Your task to perform on an android device: turn on bluetooth scan Image 0: 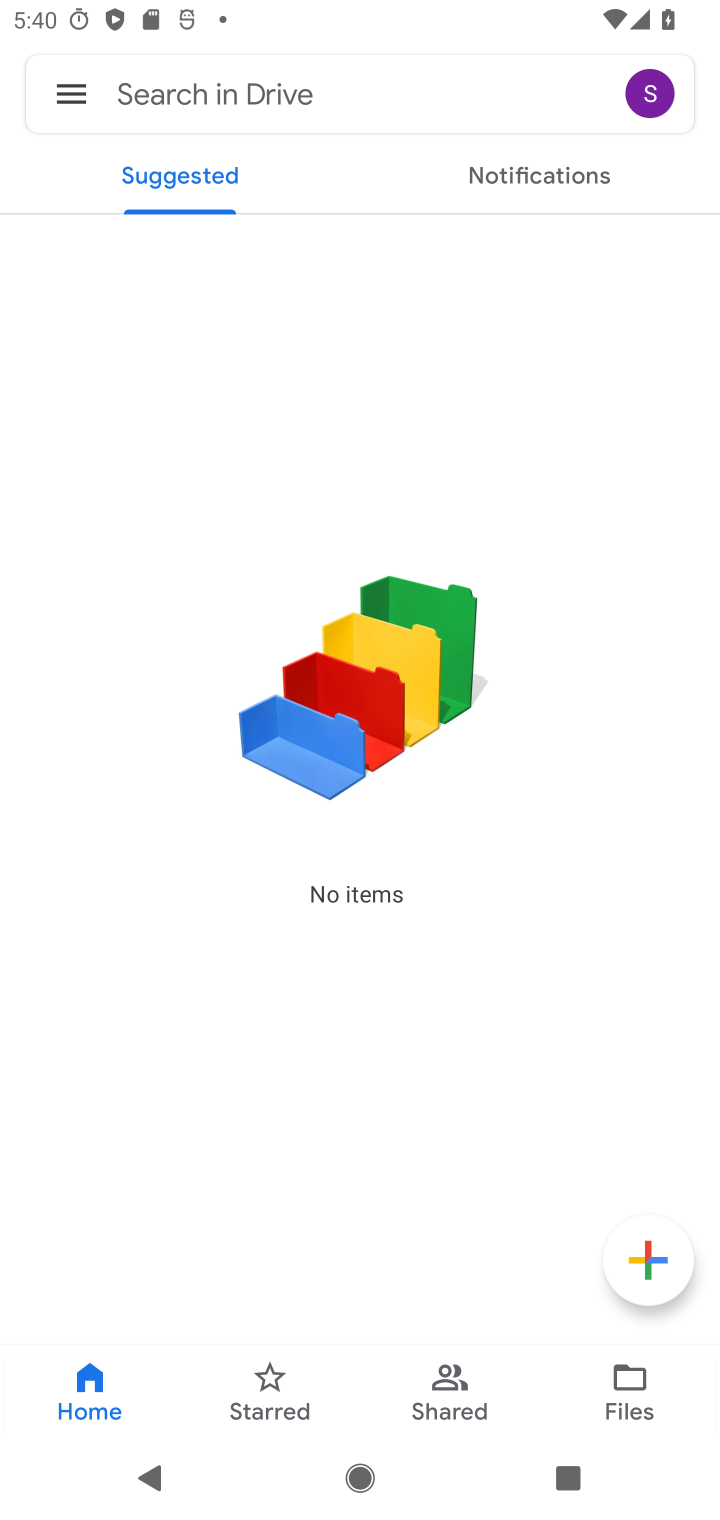
Step 0: press home button
Your task to perform on an android device: turn on bluetooth scan Image 1: 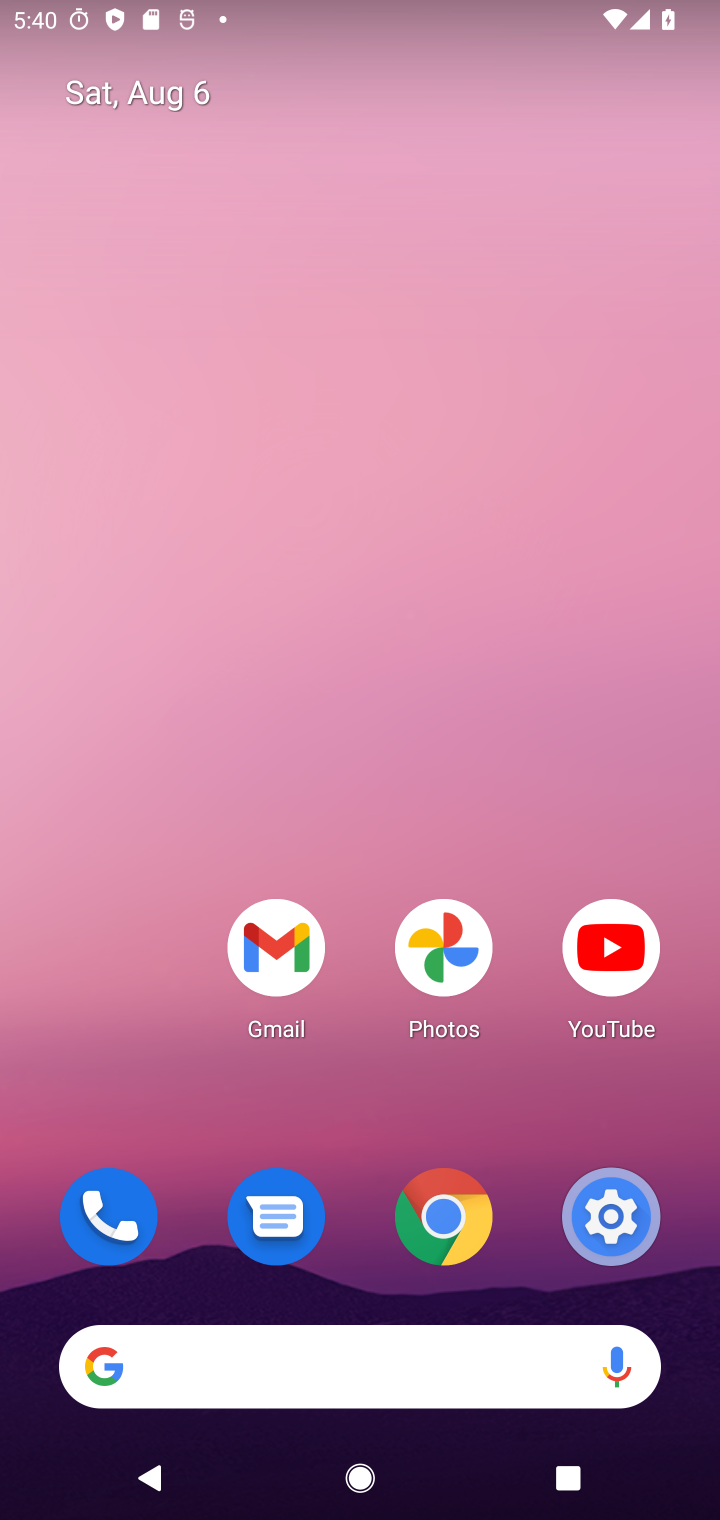
Step 1: drag from (566, 920) to (578, 143)
Your task to perform on an android device: turn on bluetooth scan Image 2: 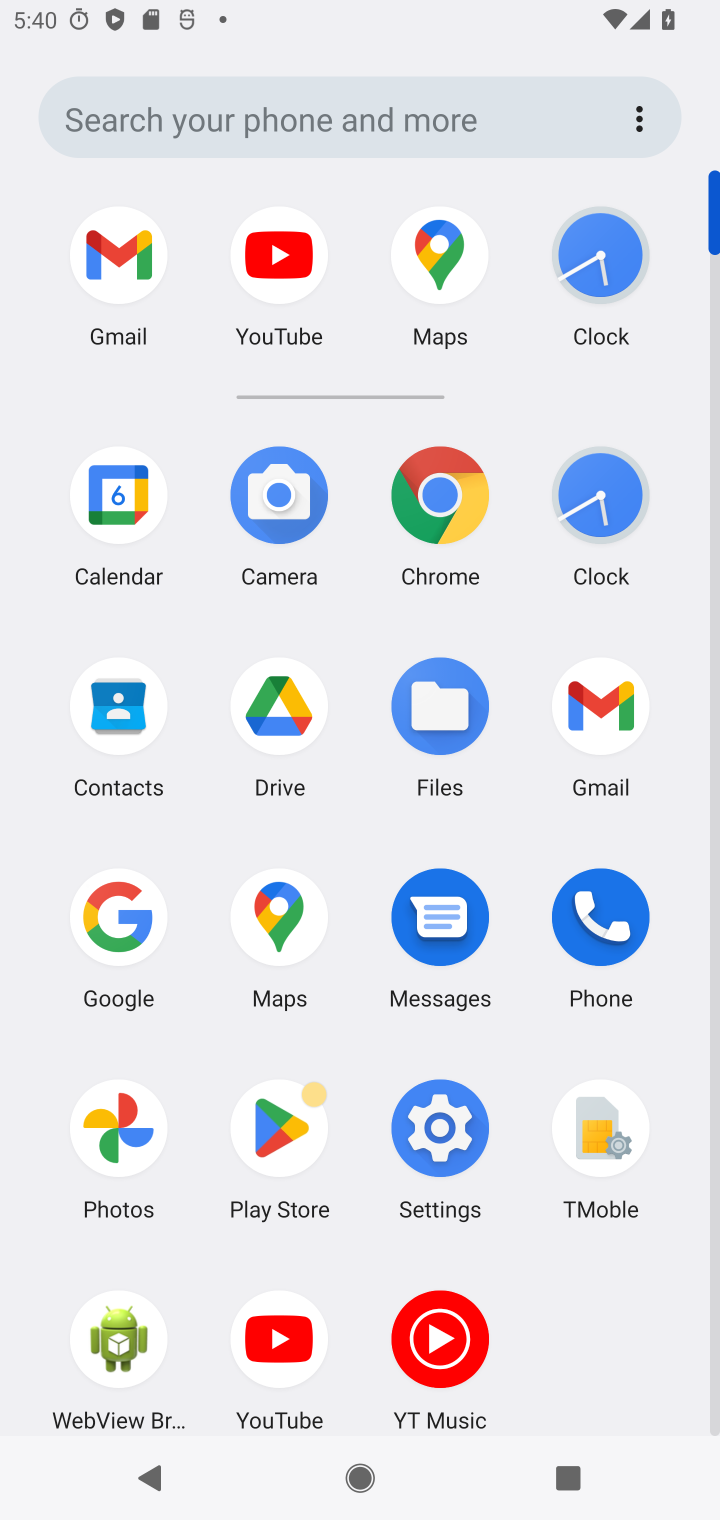
Step 2: click (435, 1111)
Your task to perform on an android device: turn on bluetooth scan Image 3: 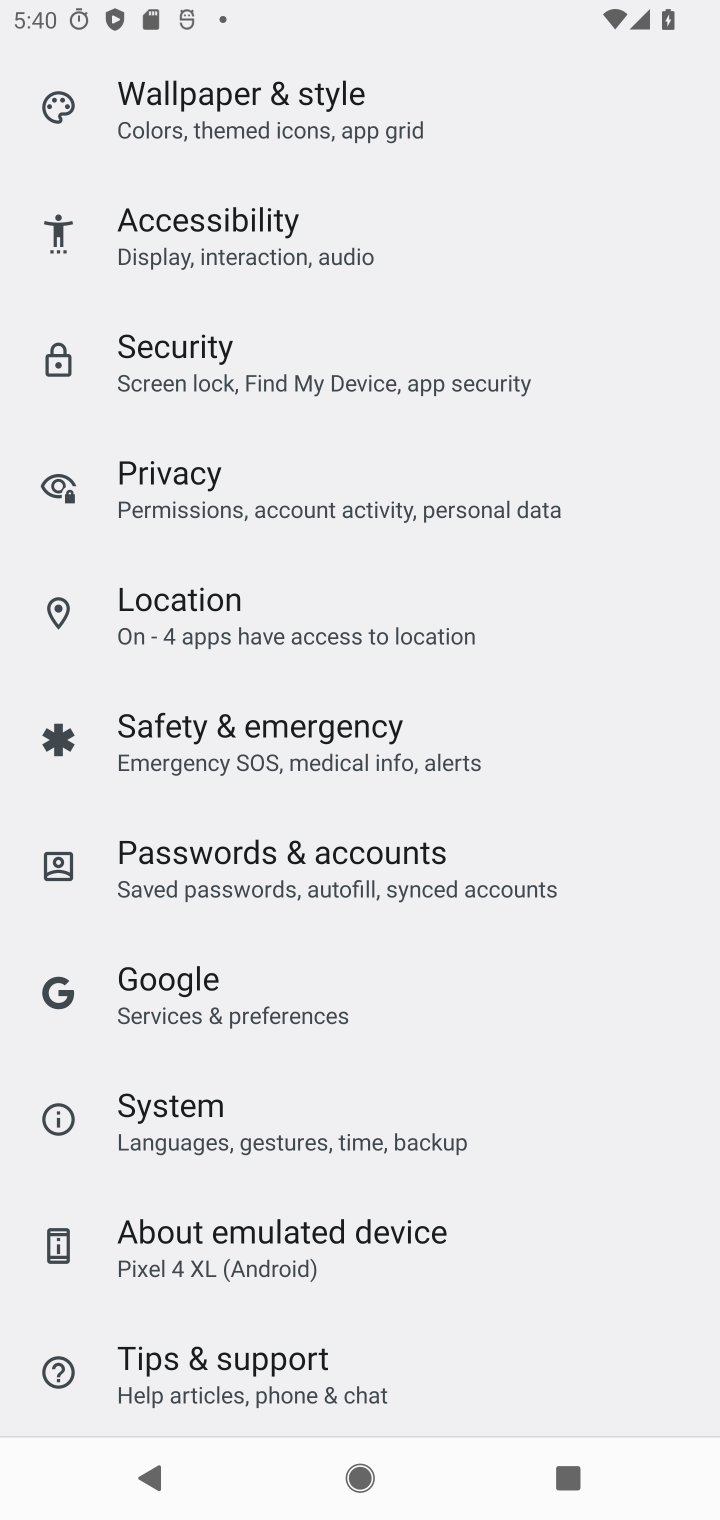
Step 3: drag from (481, 254) to (343, 1103)
Your task to perform on an android device: turn on bluetooth scan Image 4: 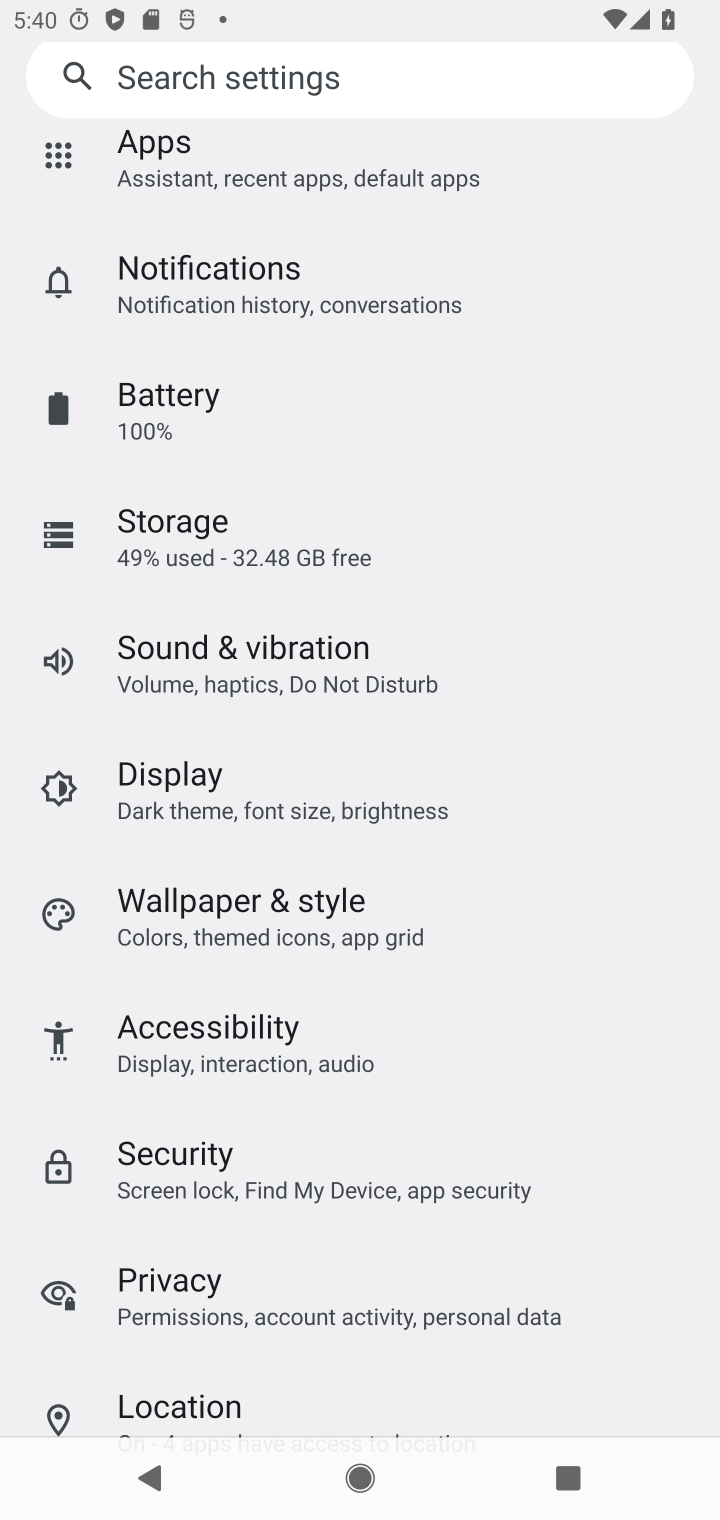
Step 4: drag from (462, 428) to (458, 973)
Your task to perform on an android device: turn on bluetooth scan Image 5: 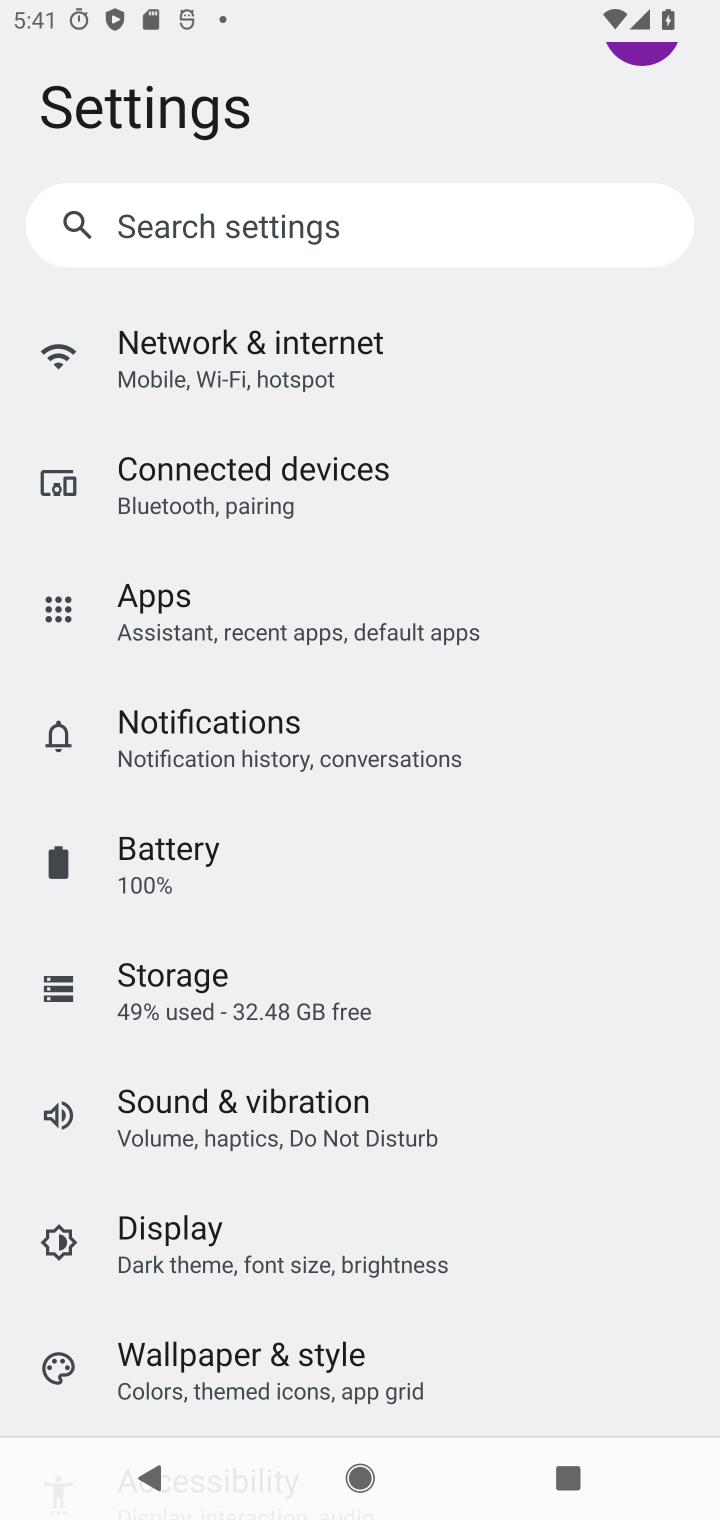
Step 5: drag from (473, 1149) to (507, 530)
Your task to perform on an android device: turn on bluetooth scan Image 6: 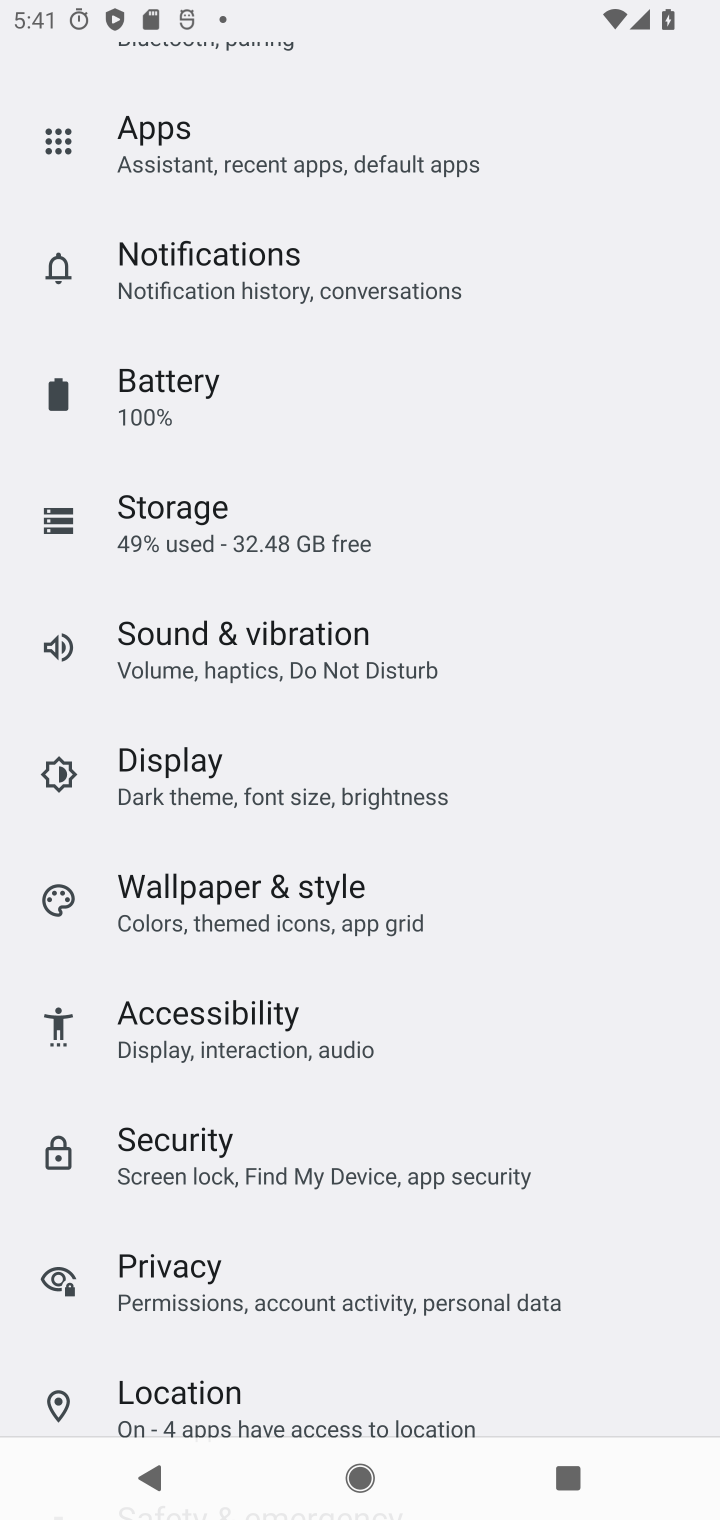
Step 6: click (185, 1402)
Your task to perform on an android device: turn on bluetooth scan Image 7: 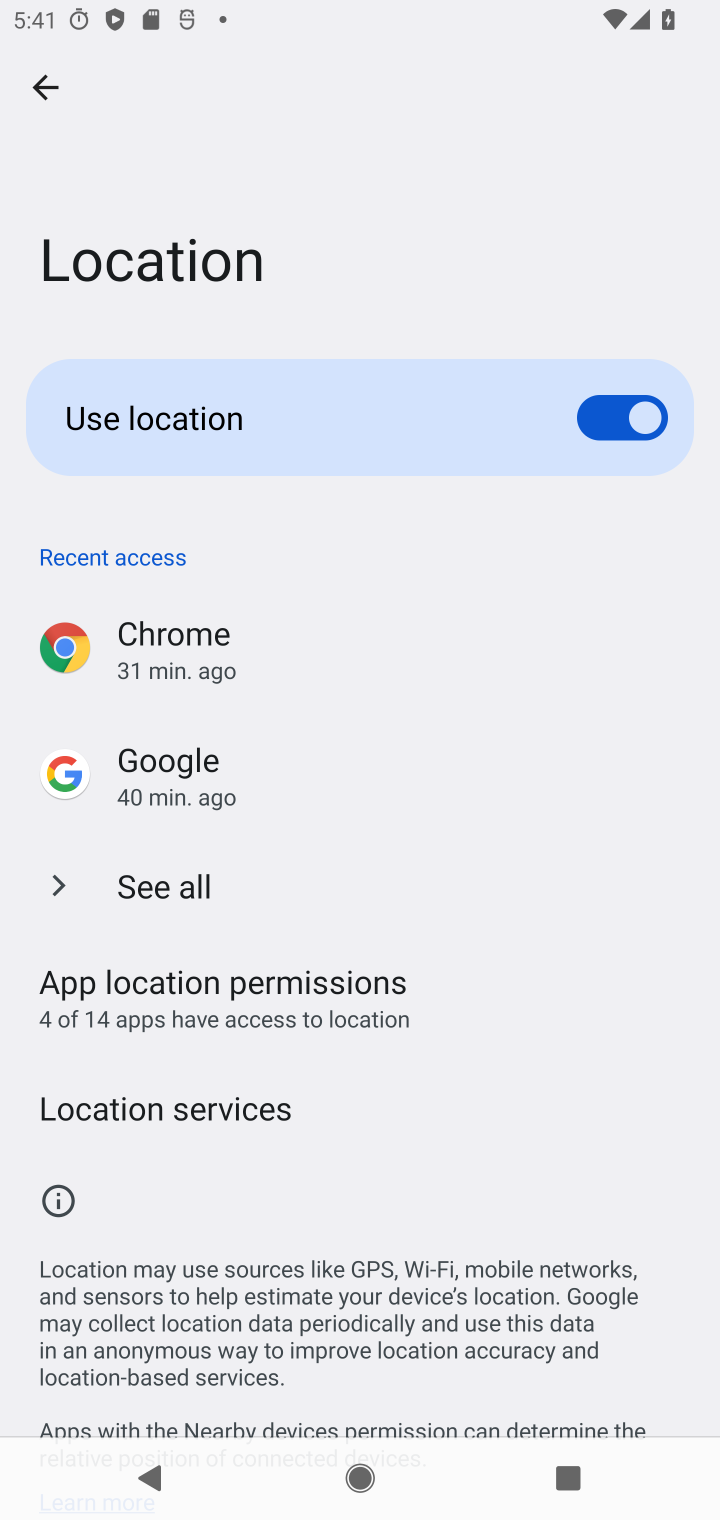
Step 7: click (256, 1126)
Your task to perform on an android device: turn on bluetooth scan Image 8: 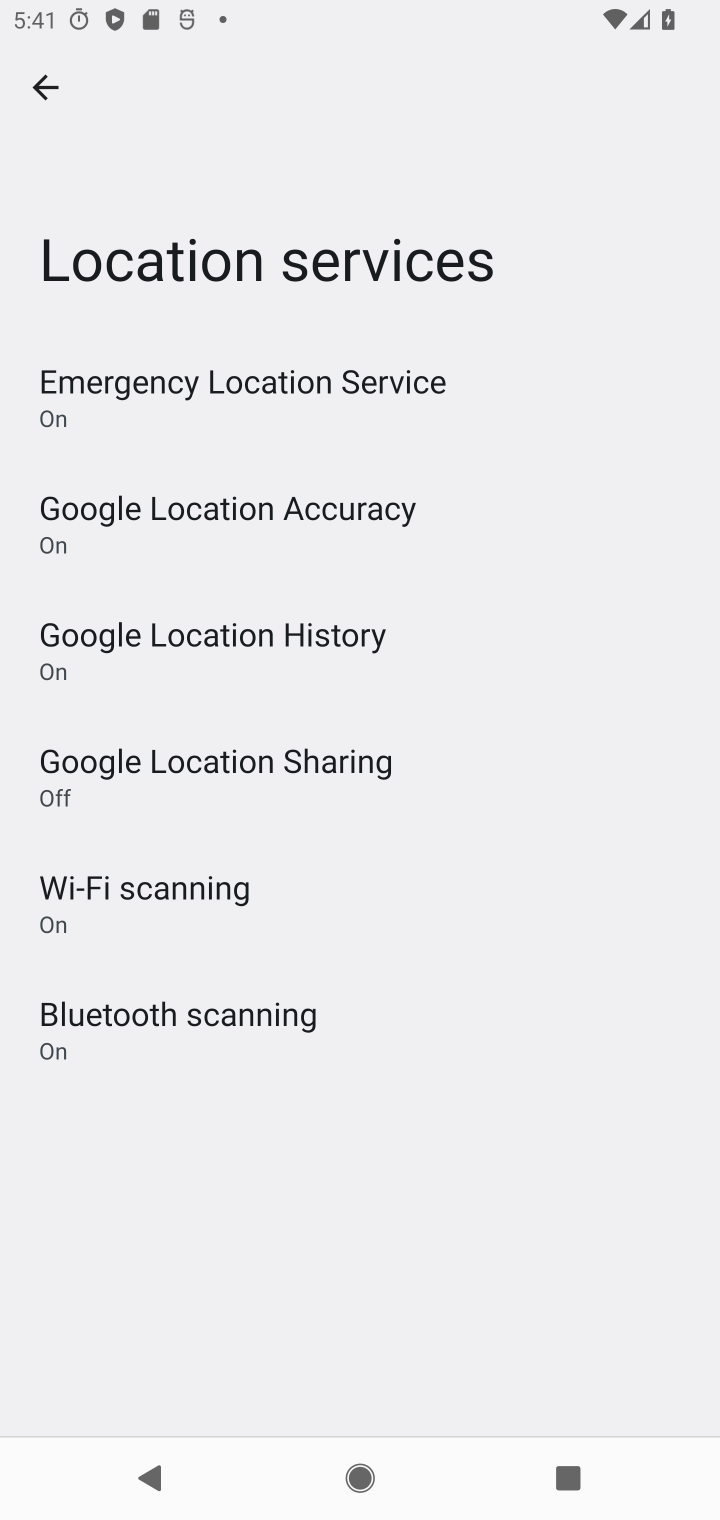
Step 8: click (214, 1016)
Your task to perform on an android device: turn on bluetooth scan Image 9: 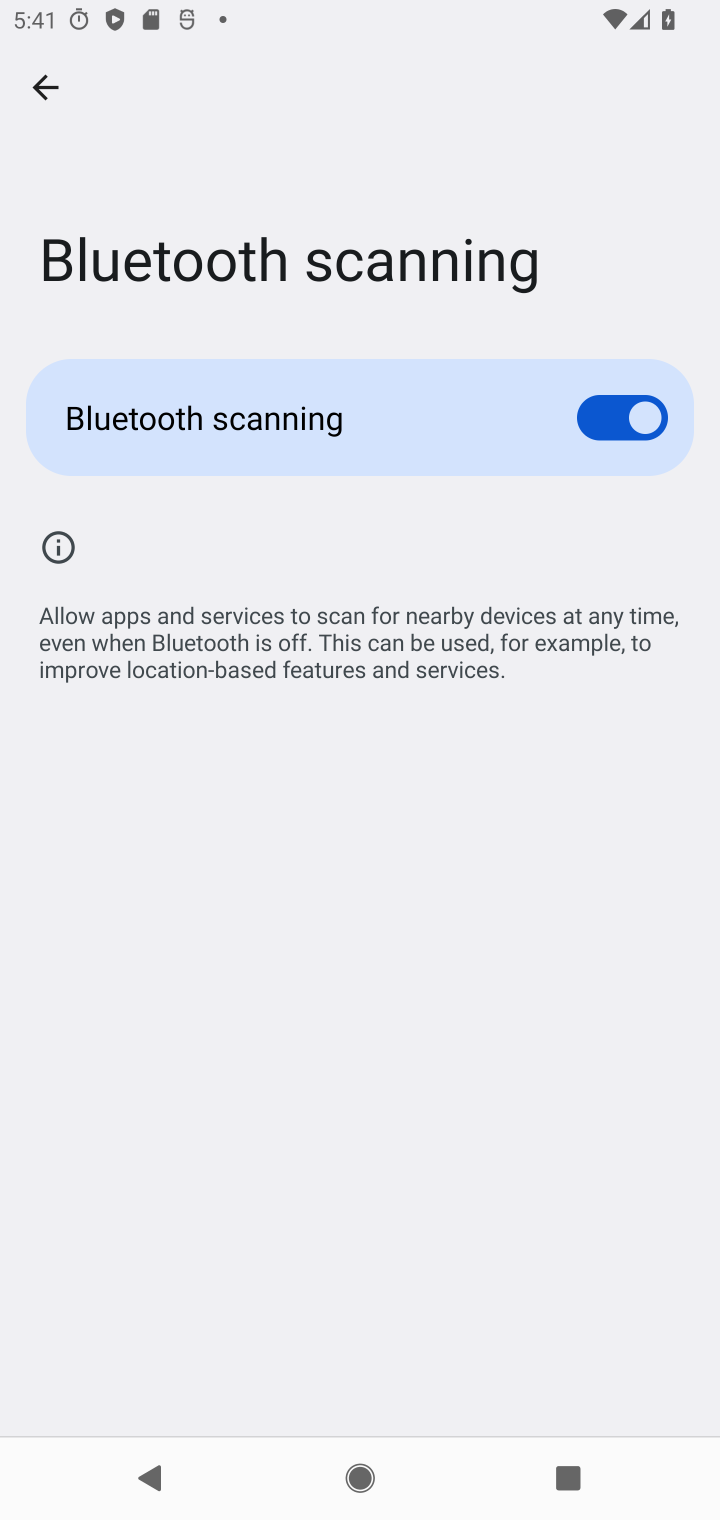
Step 9: task complete